Your task to perform on an android device: Is it going to rain tomorrow? Image 0: 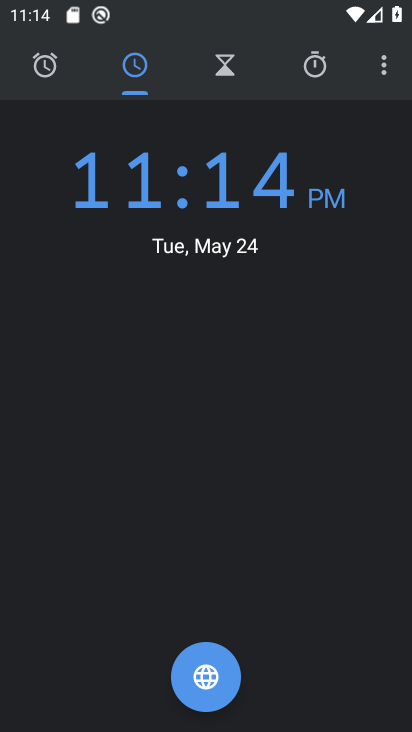
Step 0: press home button
Your task to perform on an android device: Is it going to rain tomorrow? Image 1: 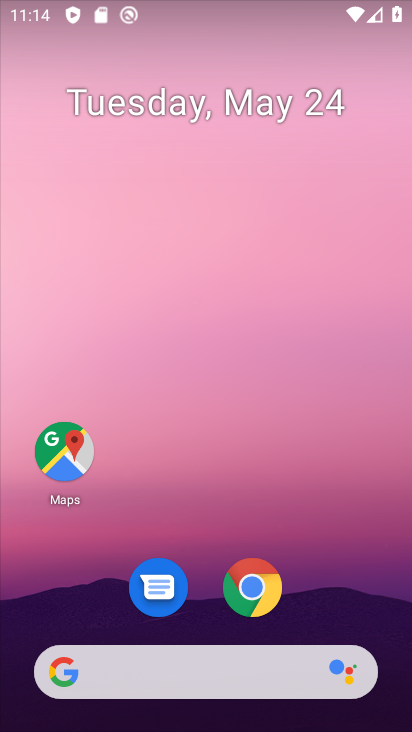
Step 1: click (264, 587)
Your task to perform on an android device: Is it going to rain tomorrow? Image 2: 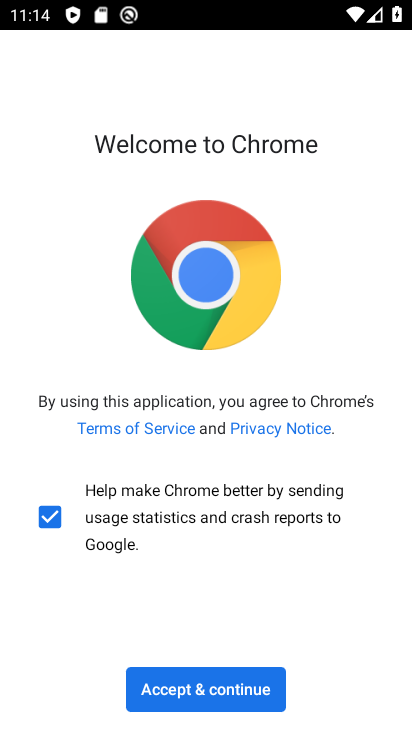
Step 2: click (229, 689)
Your task to perform on an android device: Is it going to rain tomorrow? Image 3: 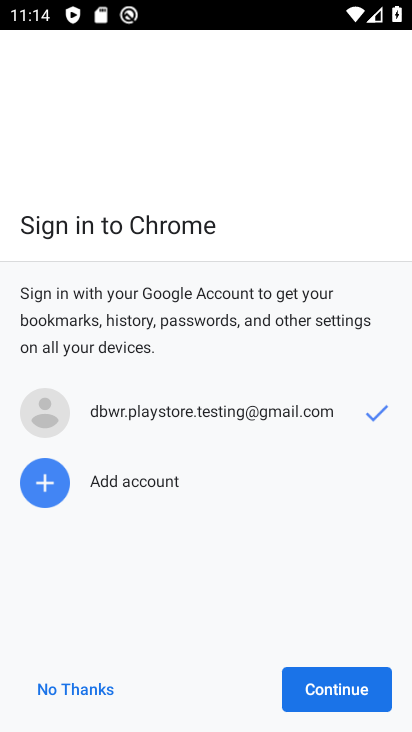
Step 3: click (309, 695)
Your task to perform on an android device: Is it going to rain tomorrow? Image 4: 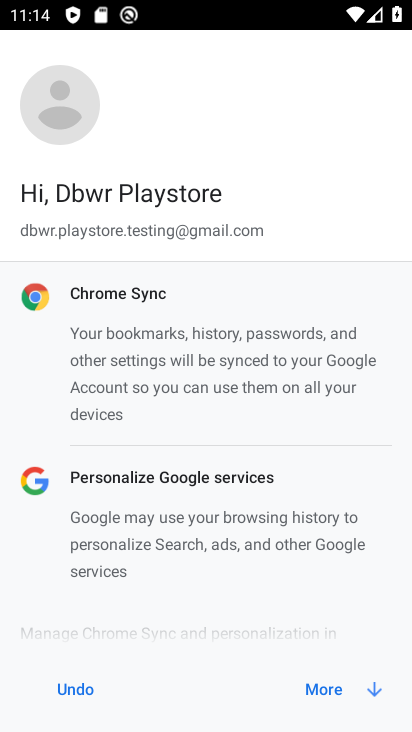
Step 4: click (309, 695)
Your task to perform on an android device: Is it going to rain tomorrow? Image 5: 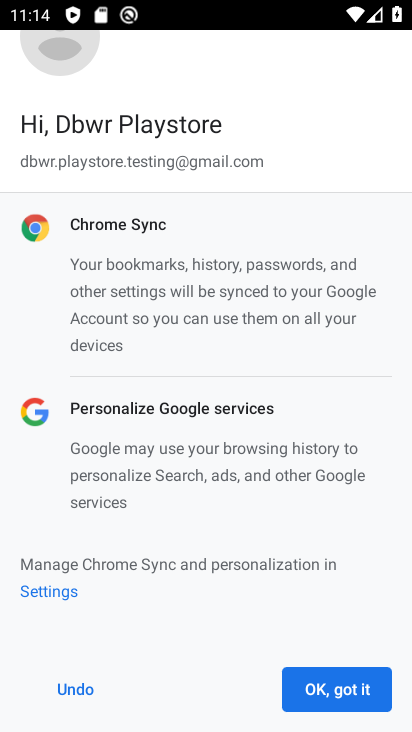
Step 5: click (309, 695)
Your task to perform on an android device: Is it going to rain tomorrow? Image 6: 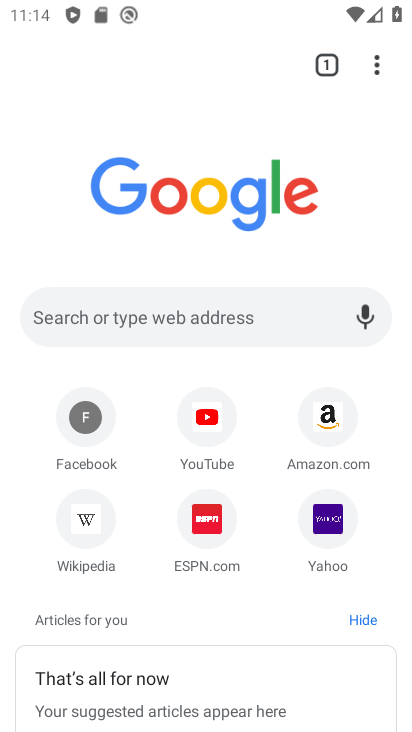
Step 6: click (255, 320)
Your task to perform on an android device: Is it going to rain tomorrow? Image 7: 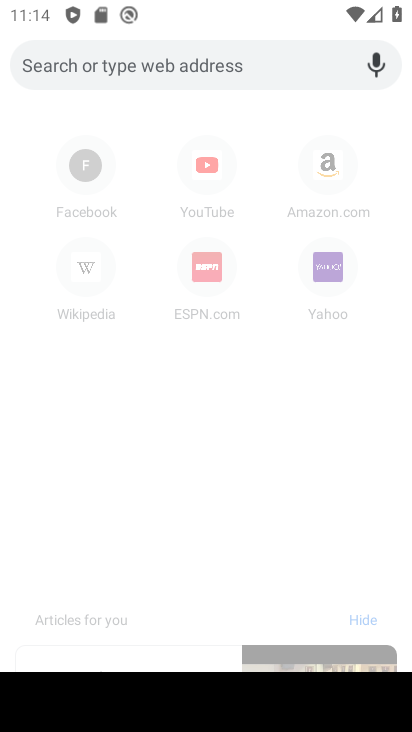
Step 7: type "is it going to rain tomorrow?"
Your task to perform on an android device: Is it going to rain tomorrow? Image 8: 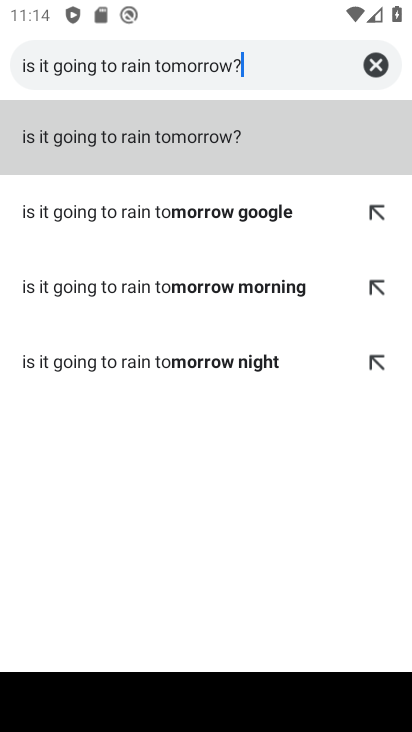
Step 8: click (223, 142)
Your task to perform on an android device: Is it going to rain tomorrow? Image 9: 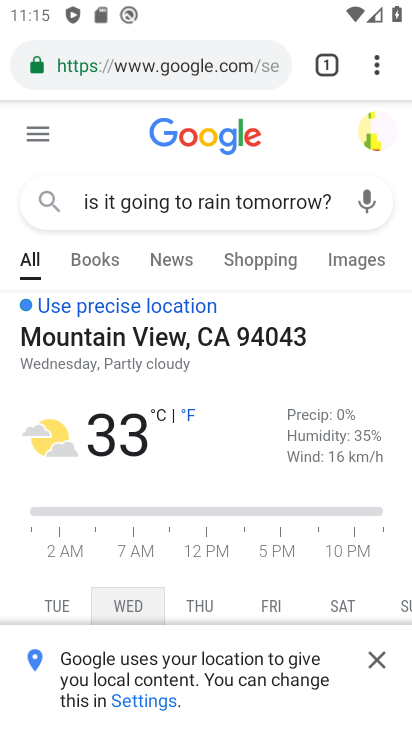
Step 9: task complete